Your task to perform on an android device: open device folders in google photos Image 0: 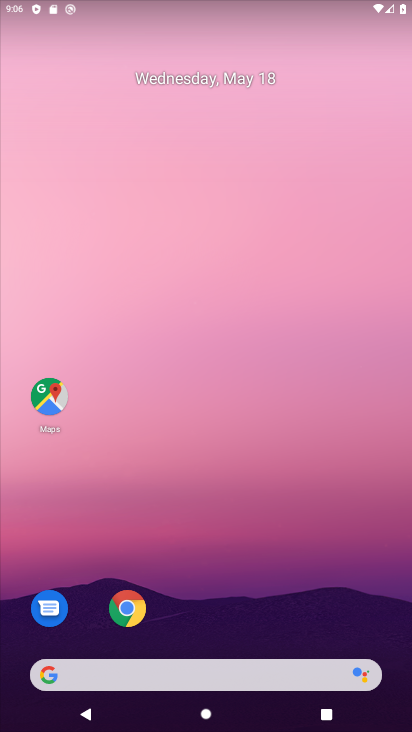
Step 0: drag from (264, 584) to (154, 149)
Your task to perform on an android device: open device folders in google photos Image 1: 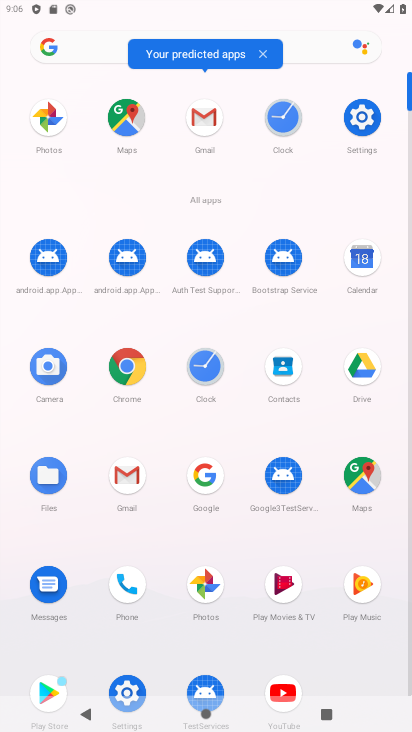
Step 1: click (199, 580)
Your task to perform on an android device: open device folders in google photos Image 2: 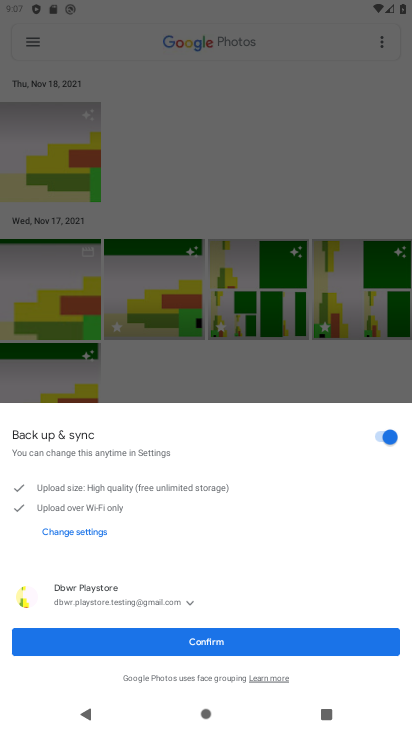
Step 2: click (190, 639)
Your task to perform on an android device: open device folders in google photos Image 3: 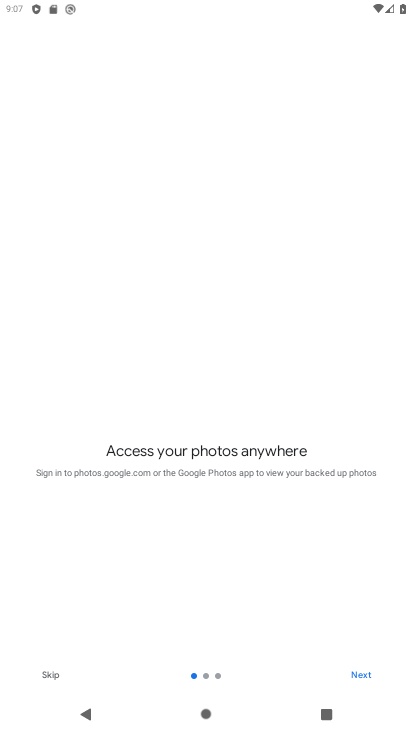
Step 3: click (349, 665)
Your task to perform on an android device: open device folders in google photos Image 4: 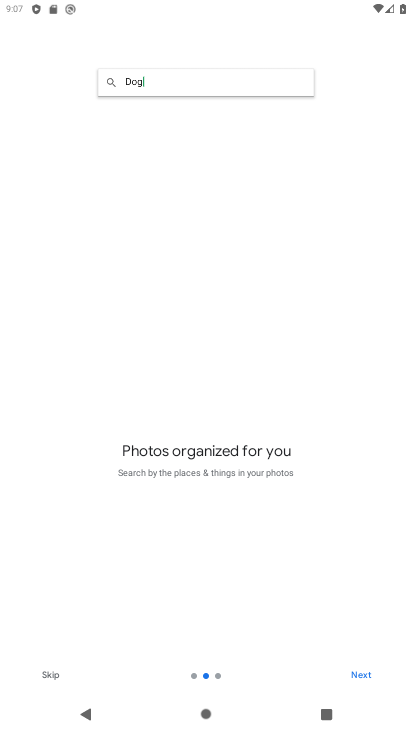
Step 4: click (349, 665)
Your task to perform on an android device: open device folders in google photos Image 5: 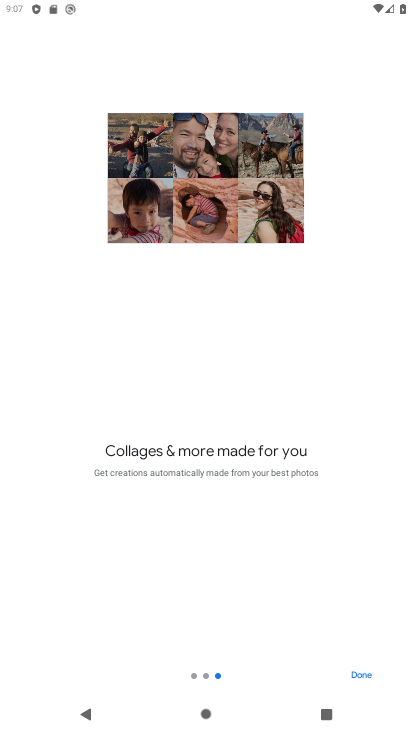
Step 5: click (349, 665)
Your task to perform on an android device: open device folders in google photos Image 6: 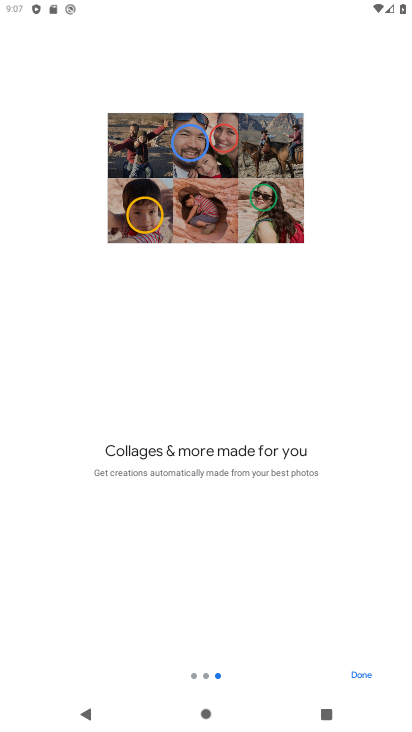
Step 6: click (349, 665)
Your task to perform on an android device: open device folders in google photos Image 7: 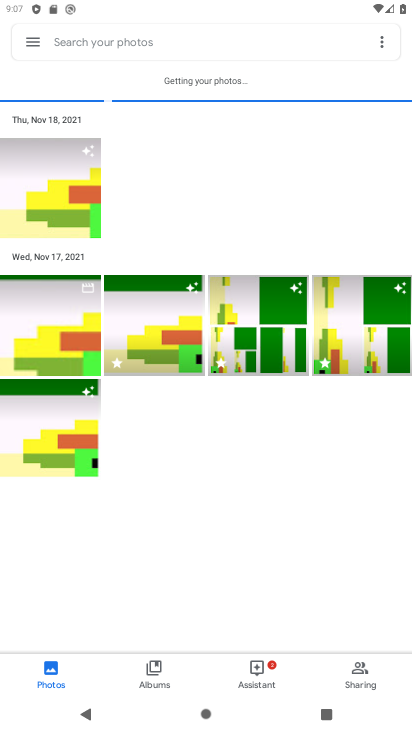
Step 7: click (36, 39)
Your task to perform on an android device: open device folders in google photos Image 8: 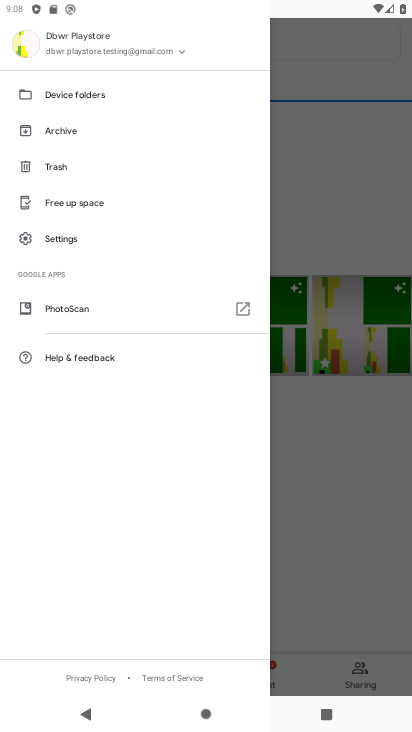
Step 8: click (73, 101)
Your task to perform on an android device: open device folders in google photos Image 9: 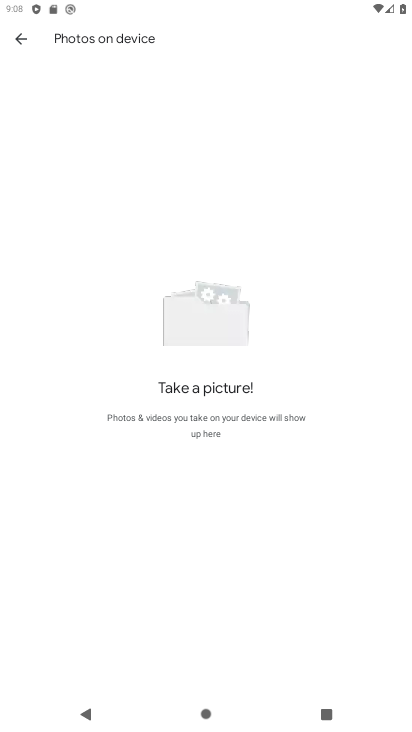
Step 9: task complete